Your task to perform on an android device: Open Google Chrome and open the bookmarks view Image 0: 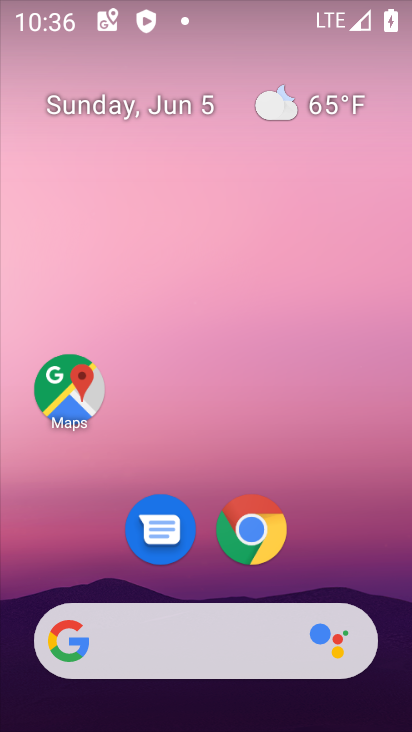
Step 0: click (293, 563)
Your task to perform on an android device: Open Google Chrome and open the bookmarks view Image 1: 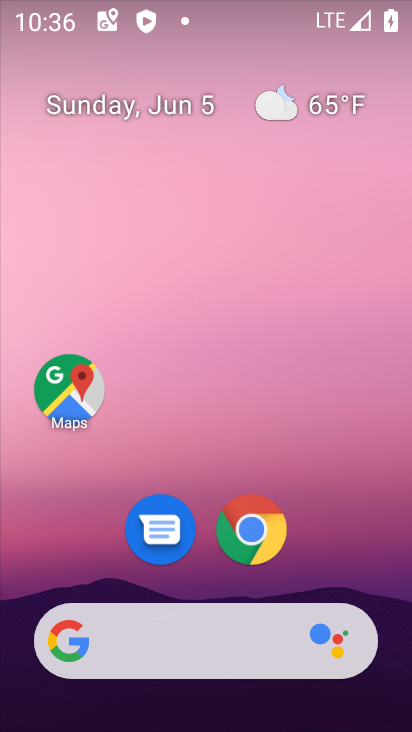
Step 1: click (293, 563)
Your task to perform on an android device: Open Google Chrome and open the bookmarks view Image 2: 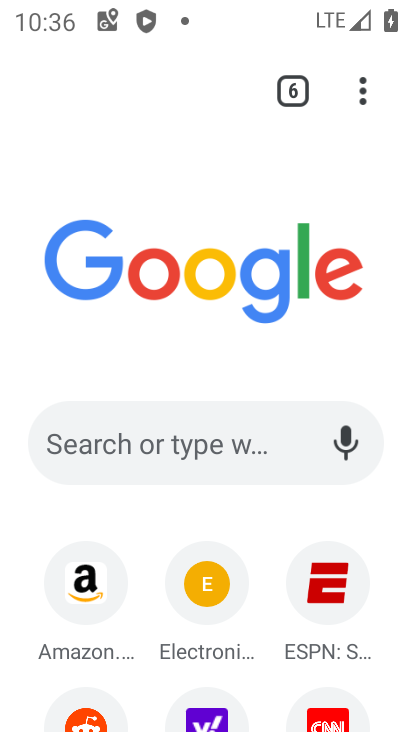
Step 2: click (365, 91)
Your task to perform on an android device: Open Google Chrome and open the bookmarks view Image 3: 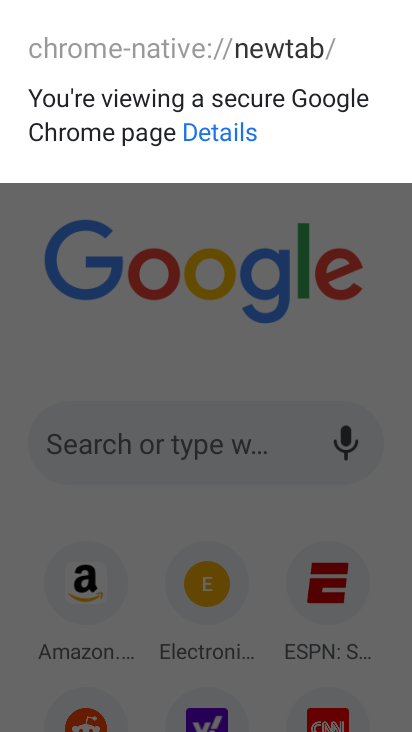
Step 3: click (355, 294)
Your task to perform on an android device: Open Google Chrome and open the bookmarks view Image 4: 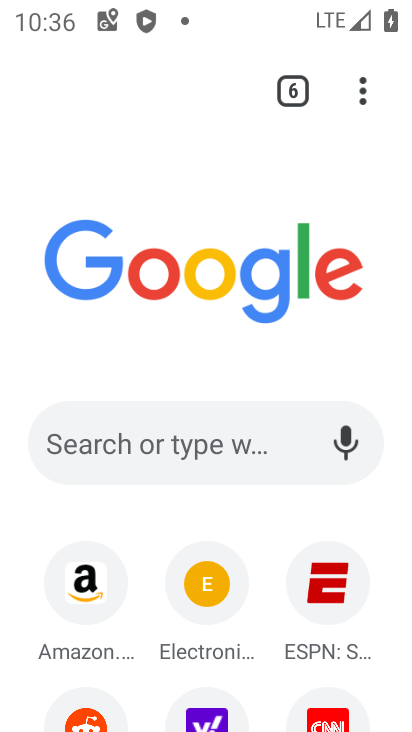
Step 4: click (360, 86)
Your task to perform on an android device: Open Google Chrome and open the bookmarks view Image 5: 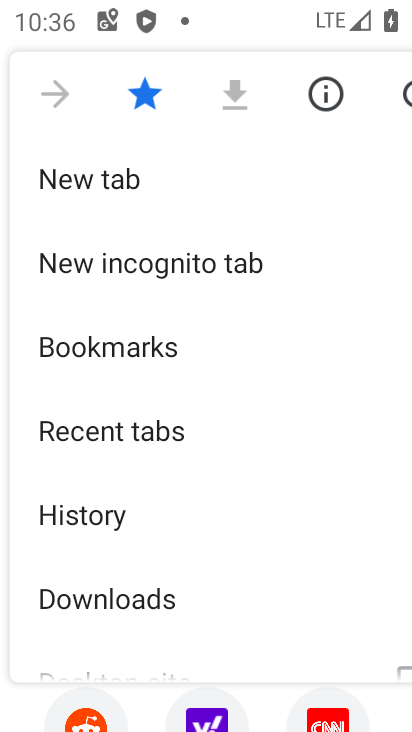
Step 5: click (250, 342)
Your task to perform on an android device: Open Google Chrome and open the bookmarks view Image 6: 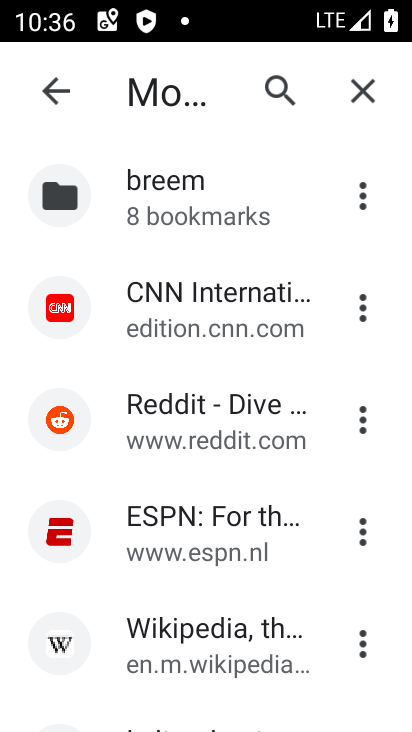
Step 6: task complete